Your task to perform on an android device: turn off location Image 0: 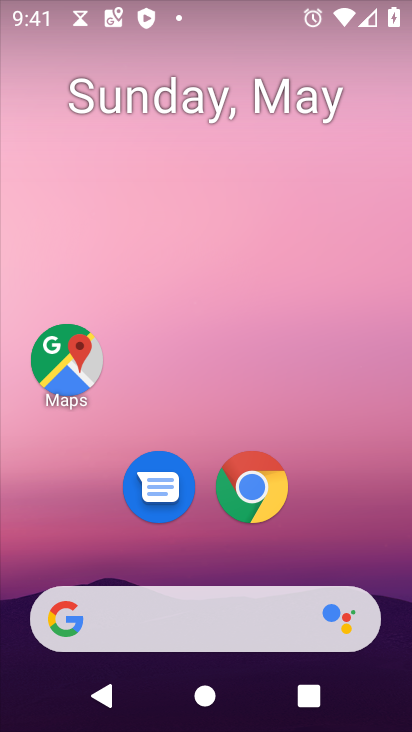
Step 0: drag from (391, 467) to (303, 90)
Your task to perform on an android device: turn off location Image 1: 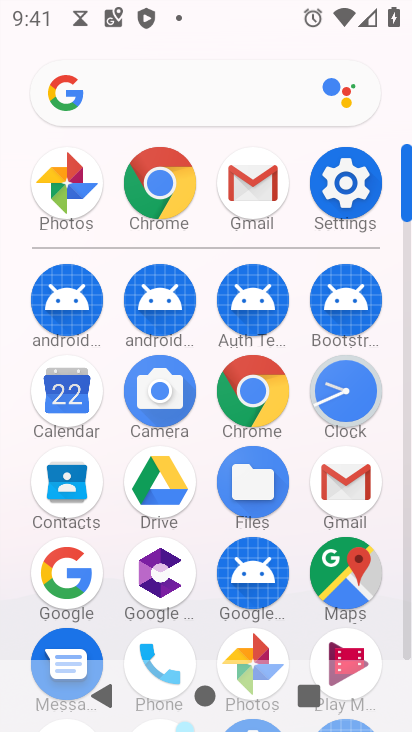
Step 1: click (347, 162)
Your task to perform on an android device: turn off location Image 2: 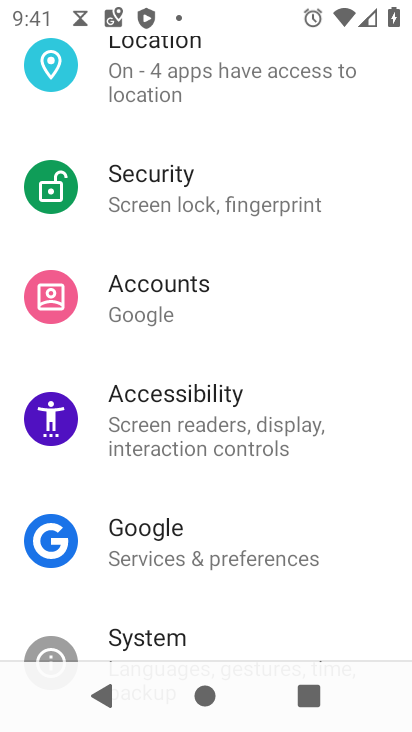
Step 2: drag from (228, 609) to (145, 375)
Your task to perform on an android device: turn off location Image 3: 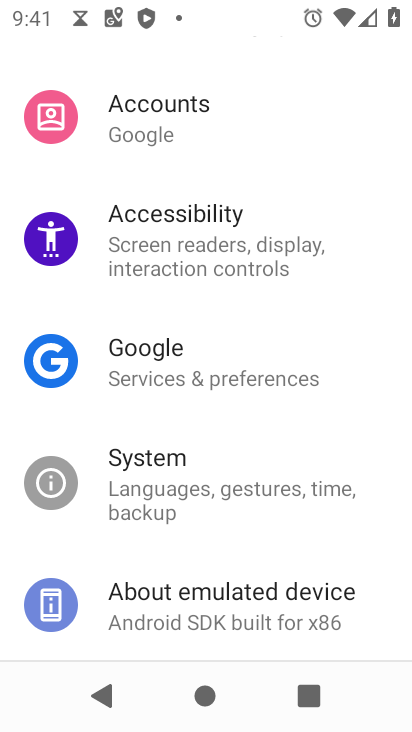
Step 3: drag from (236, 280) to (261, 608)
Your task to perform on an android device: turn off location Image 4: 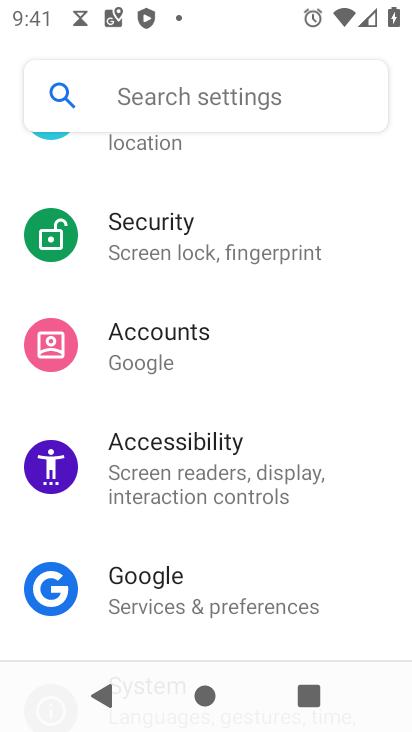
Step 4: drag from (127, 186) to (198, 601)
Your task to perform on an android device: turn off location Image 5: 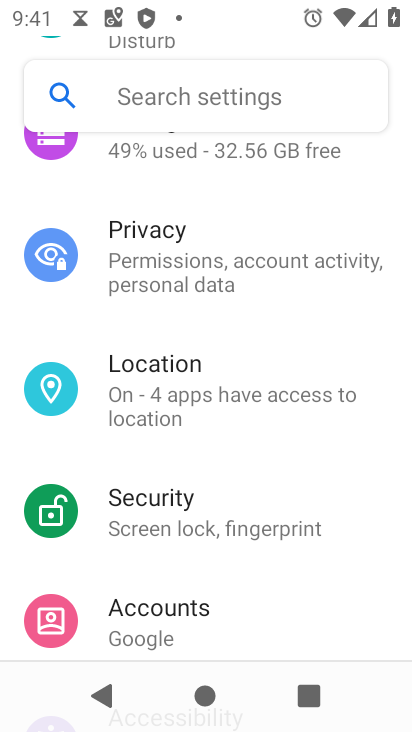
Step 5: click (133, 353)
Your task to perform on an android device: turn off location Image 6: 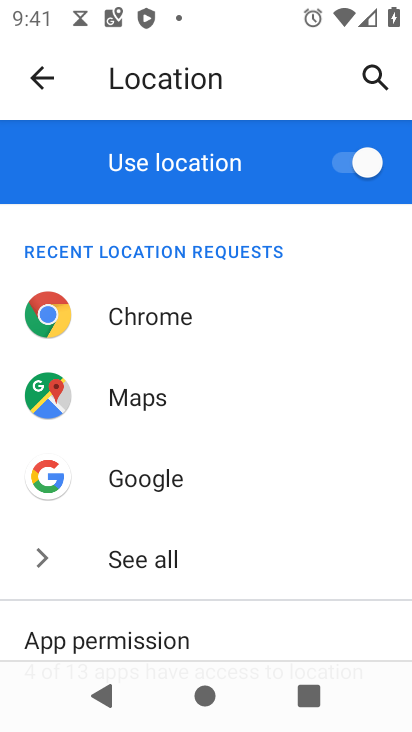
Step 6: drag from (200, 567) to (186, 269)
Your task to perform on an android device: turn off location Image 7: 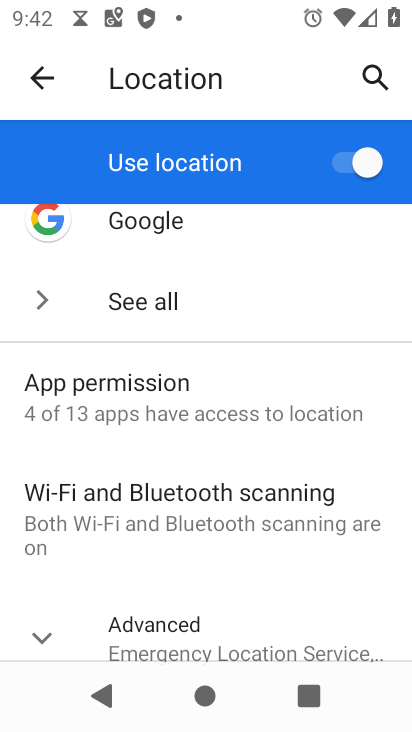
Step 7: click (352, 162)
Your task to perform on an android device: turn off location Image 8: 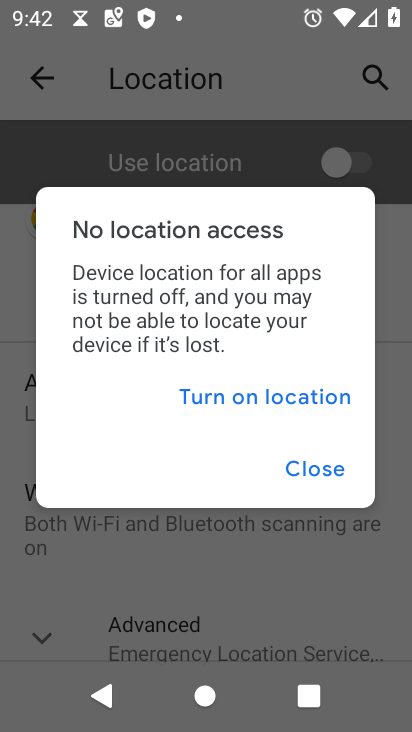
Step 8: task complete